Your task to perform on an android device: Go to Amazon Image 0: 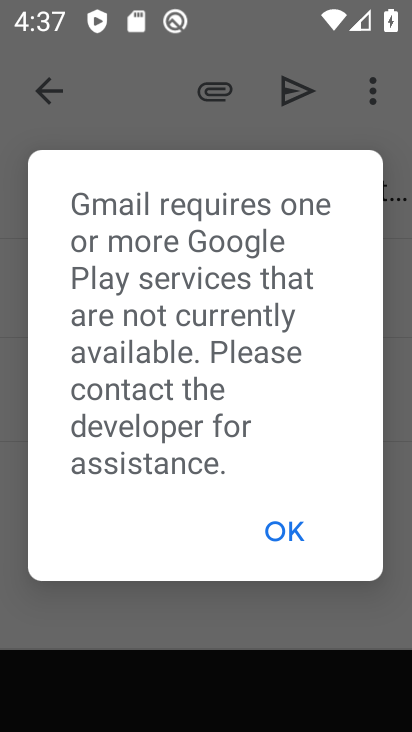
Step 0: drag from (250, 577) to (236, 457)
Your task to perform on an android device: Go to Amazon Image 1: 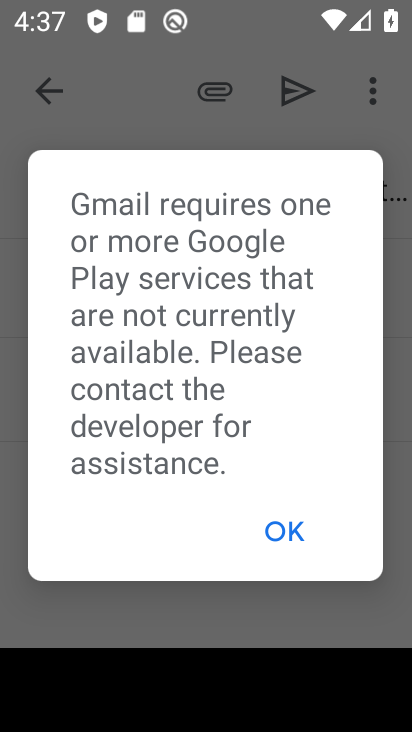
Step 1: click (279, 525)
Your task to perform on an android device: Go to Amazon Image 2: 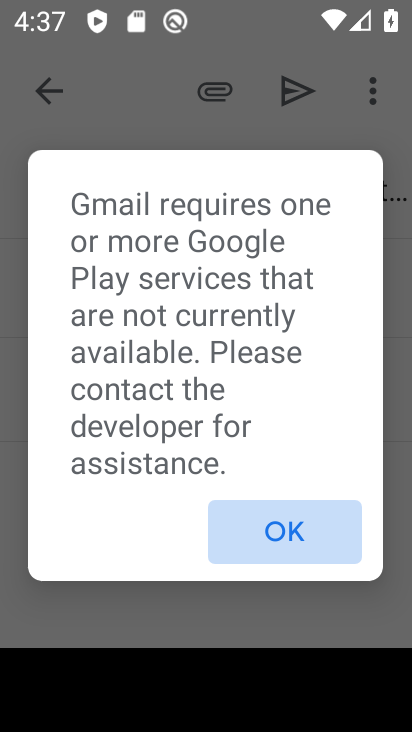
Step 2: click (279, 525)
Your task to perform on an android device: Go to Amazon Image 3: 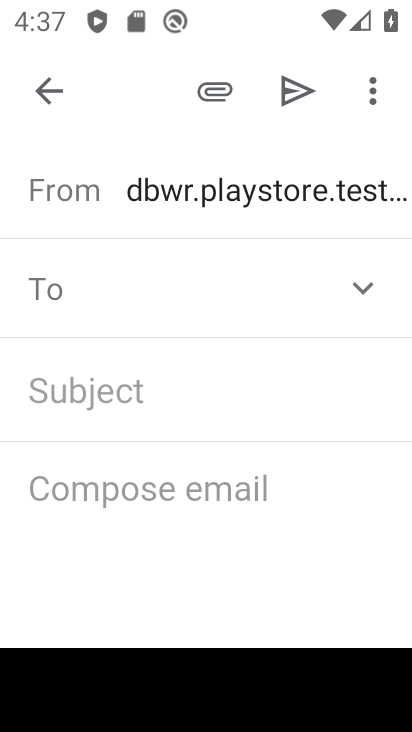
Step 3: click (274, 524)
Your task to perform on an android device: Go to Amazon Image 4: 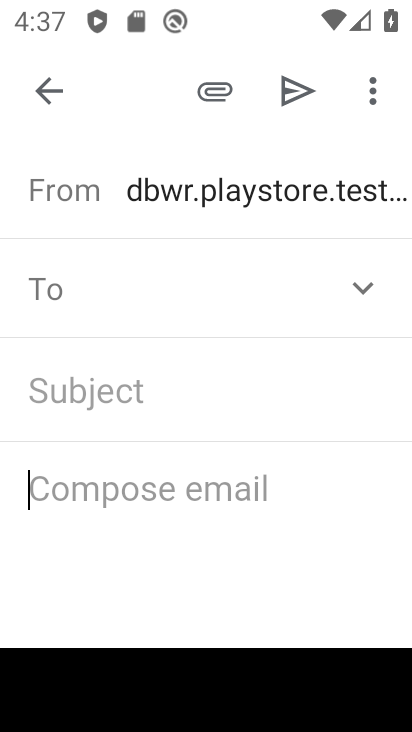
Step 4: press back button
Your task to perform on an android device: Go to Amazon Image 5: 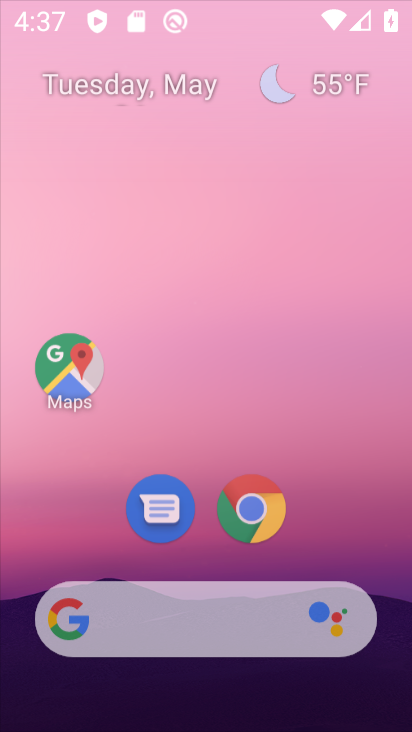
Step 5: click (57, 91)
Your task to perform on an android device: Go to Amazon Image 6: 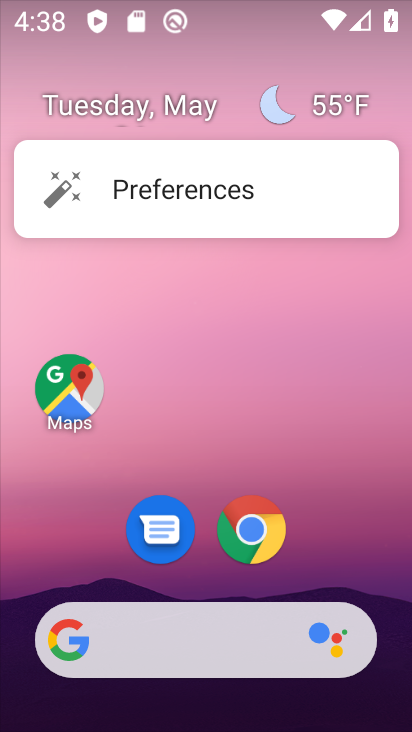
Step 6: drag from (296, 656) to (277, 74)
Your task to perform on an android device: Go to Amazon Image 7: 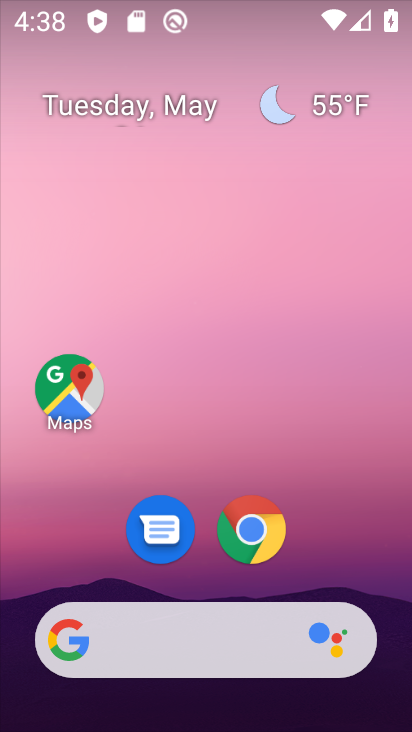
Step 7: drag from (266, 678) to (224, 225)
Your task to perform on an android device: Go to Amazon Image 8: 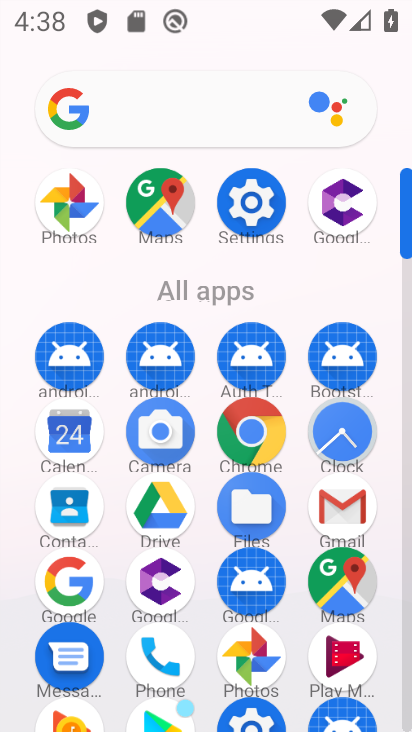
Step 8: click (263, 439)
Your task to perform on an android device: Go to Amazon Image 9: 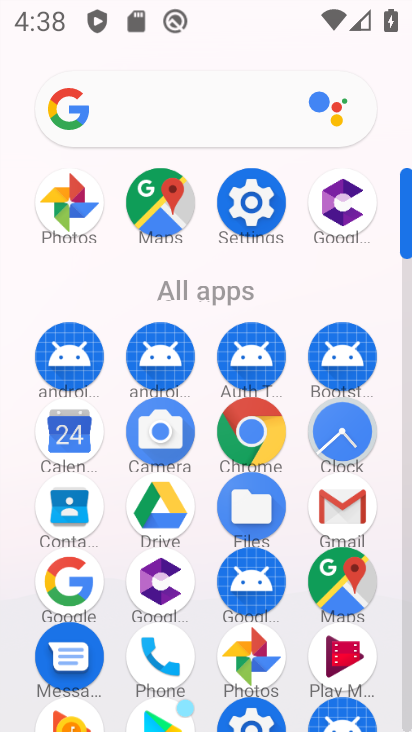
Step 9: click (264, 440)
Your task to perform on an android device: Go to Amazon Image 10: 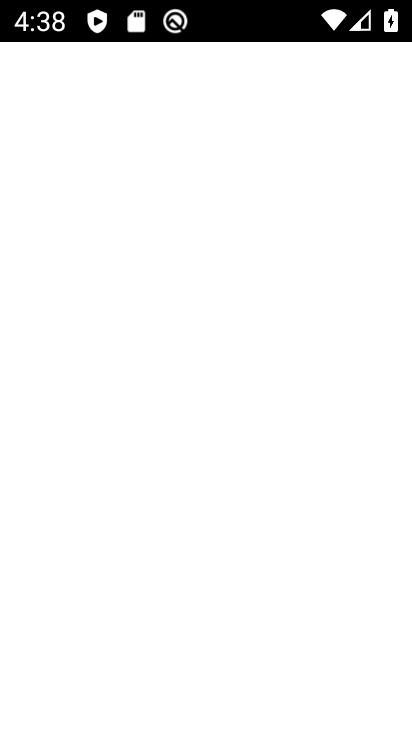
Step 10: click (261, 433)
Your task to perform on an android device: Go to Amazon Image 11: 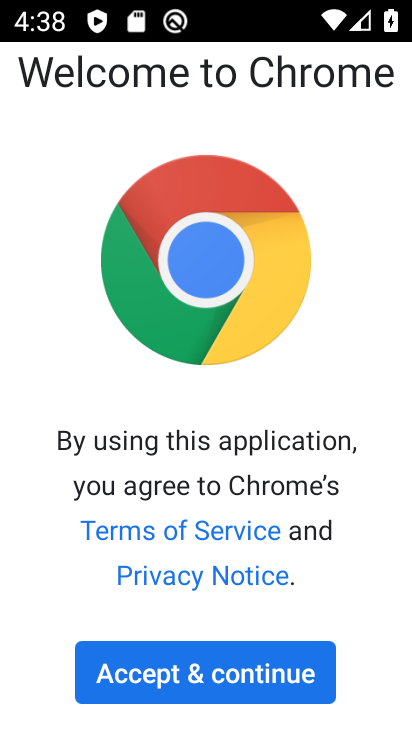
Step 11: click (211, 681)
Your task to perform on an android device: Go to Amazon Image 12: 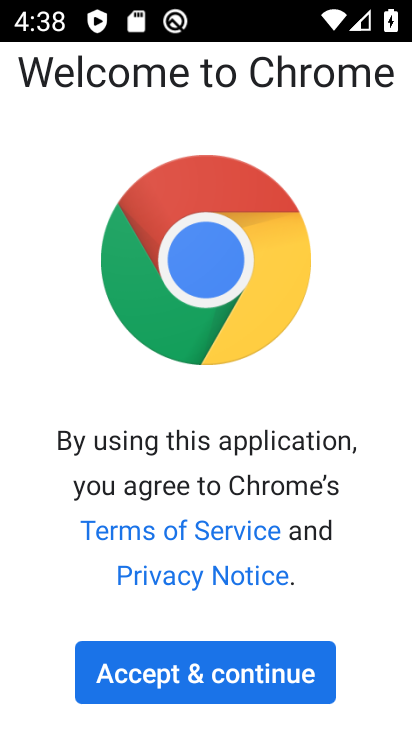
Step 12: click (211, 682)
Your task to perform on an android device: Go to Amazon Image 13: 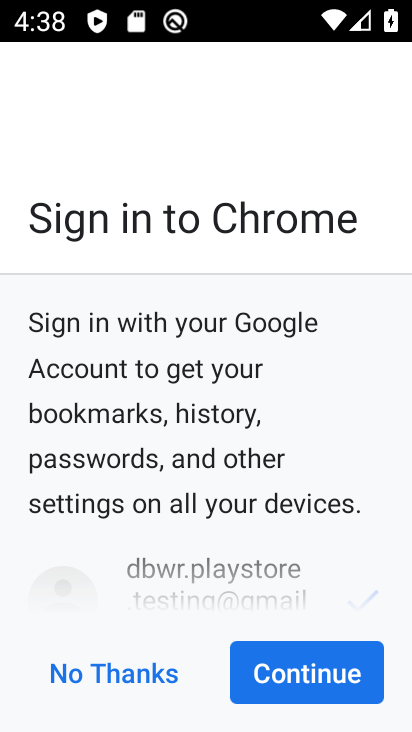
Step 13: click (216, 681)
Your task to perform on an android device: Go to Amazon Image 14: 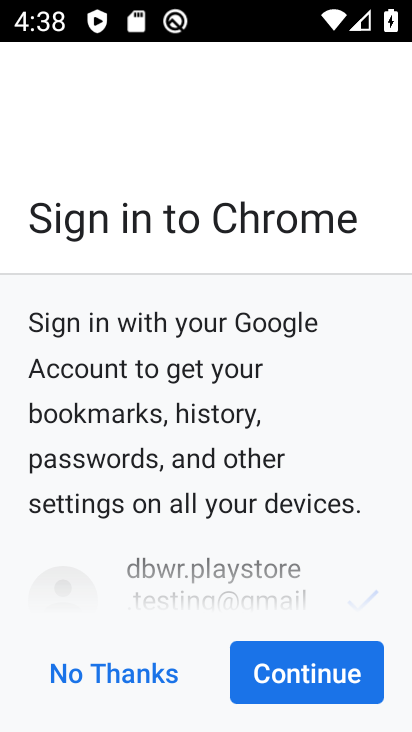
Step 14: click (309, 677)
Your task to perform on an android device: Go to Amazon Image 15: 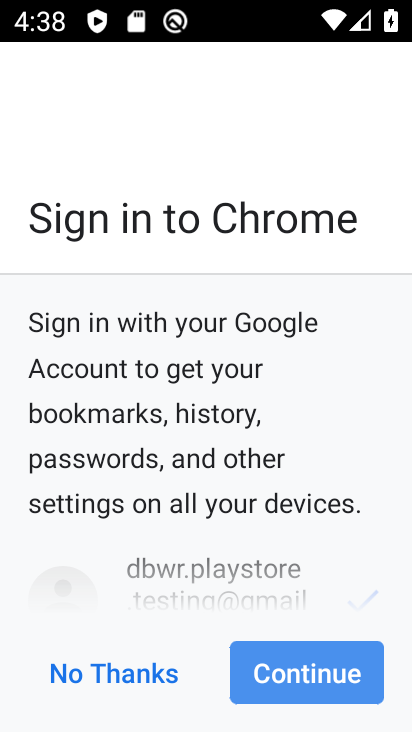
Step 15: click (309, 677)
Your task to perform on an android device: Go to Amazon Image 16: 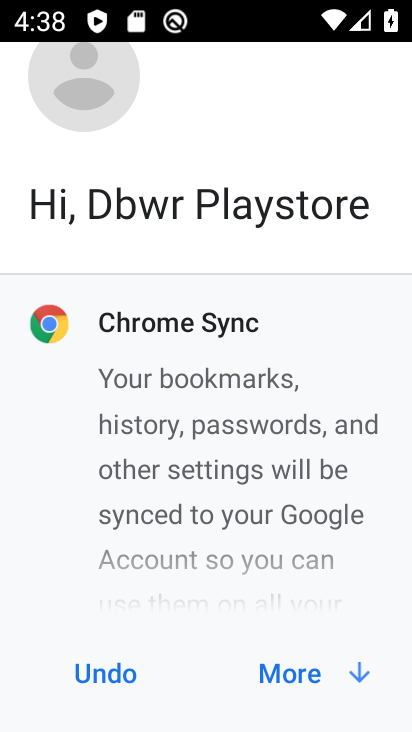
Step 16: click (315, 679)
Your task to perform on an android device: Go to Amazon Image 17: 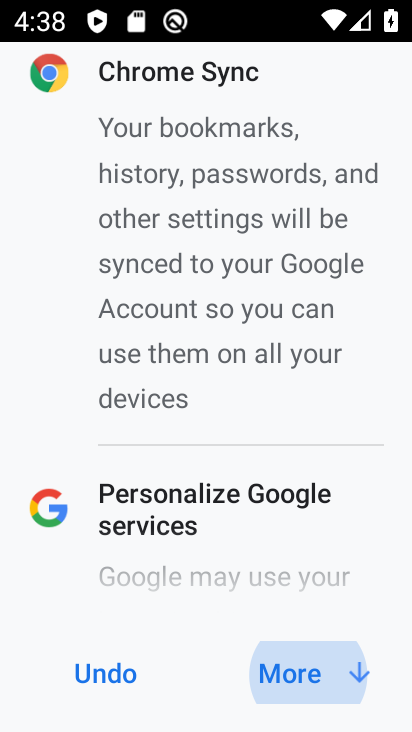
Step 17: click (317, 679)
Your task to perform on an android device: Go to Amazon Image 18: 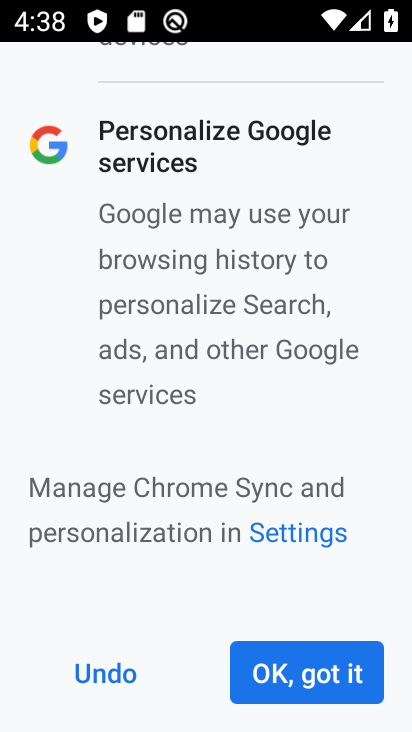
Step 18: click (319, 679)
Your task to perform on an android device: Go to Amazon Image 19: 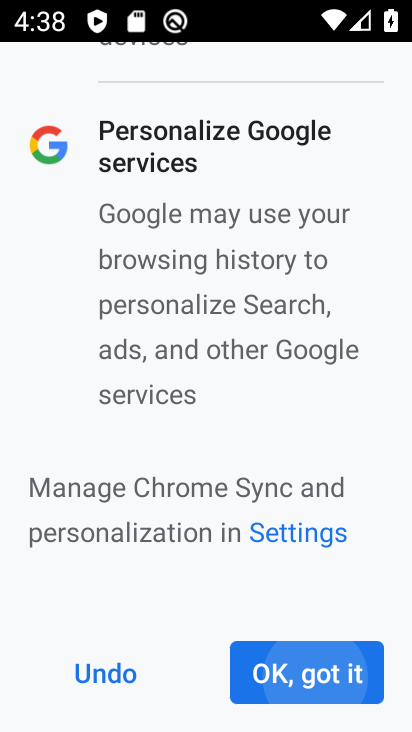
Step 19: click (322, 674)
Your task to perform on an android device: Go to Amazon Image 20: 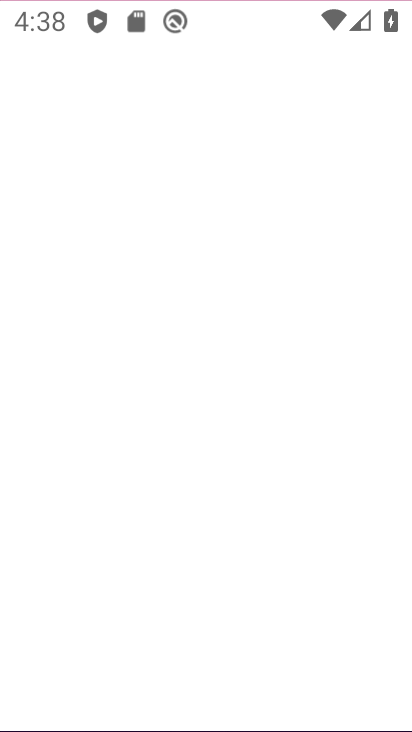
Step 20: click (323, 658)
Your task to perform on an android device: Go to Amazon Image 21: 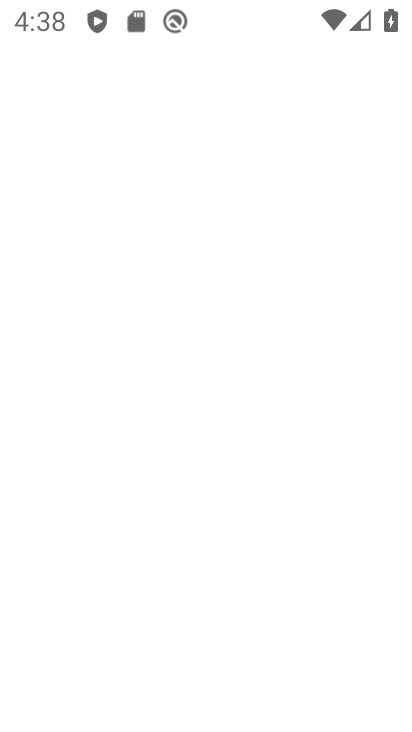
Step 21: click (323, 658)
Your task to perform on an android device: Go to Amazon Image 22: 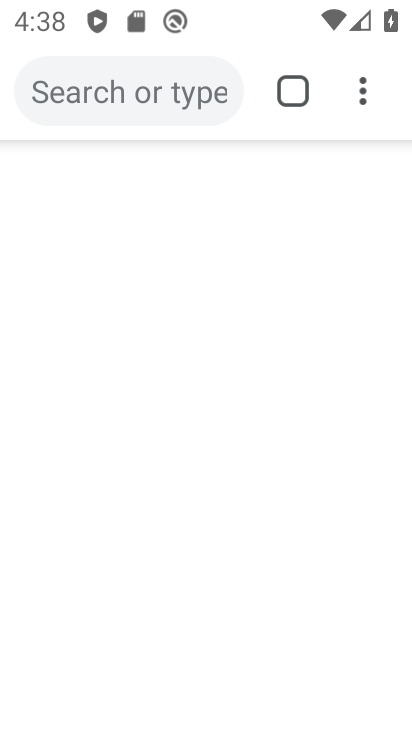
Step 22: click (328, 661)
Your task to perform on an android device: Go to Amazon Image 23: 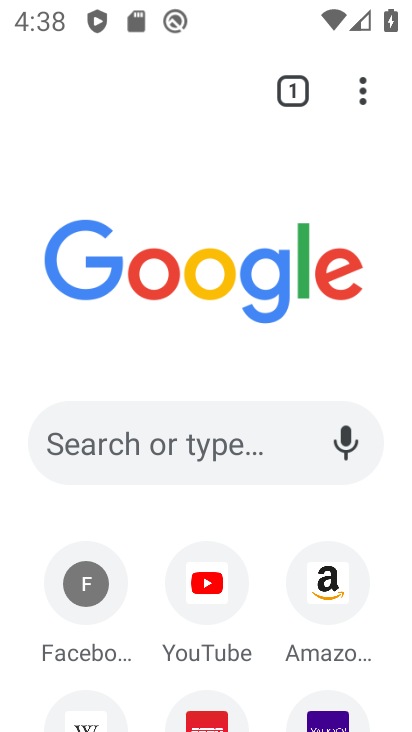
Step 23: click (357, 104)
Your task to perform on an android device: Go to Amazon Image 24: 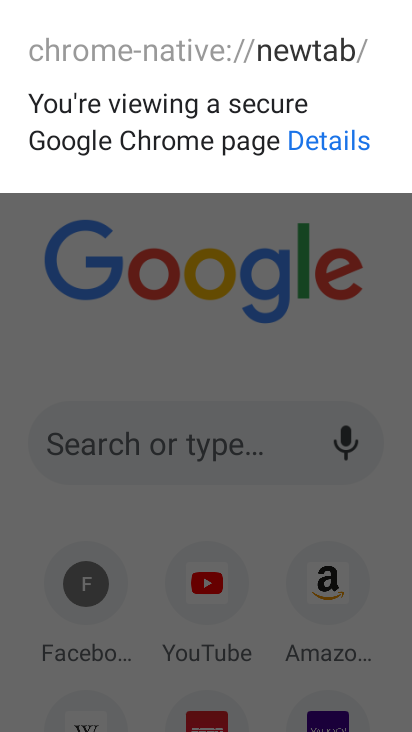
Step 24: click (258, 268)
Your task to perform on an android device: Go to Amazon Image 25: 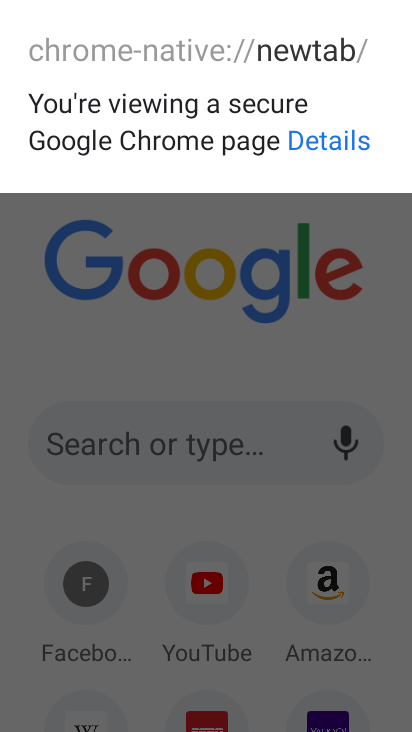
Step 25: click (258, 268)
Your task to perform on an android device: Go to Amazon Image 26: 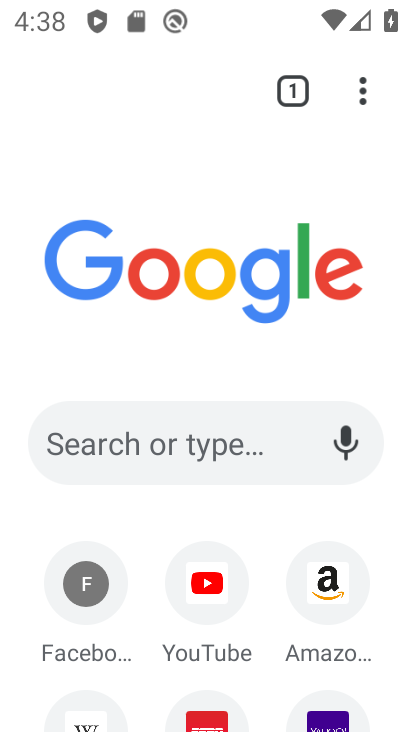
Step 26: click (257, 261)
Your task to perform on an android device: Go to Amazon Image 27: 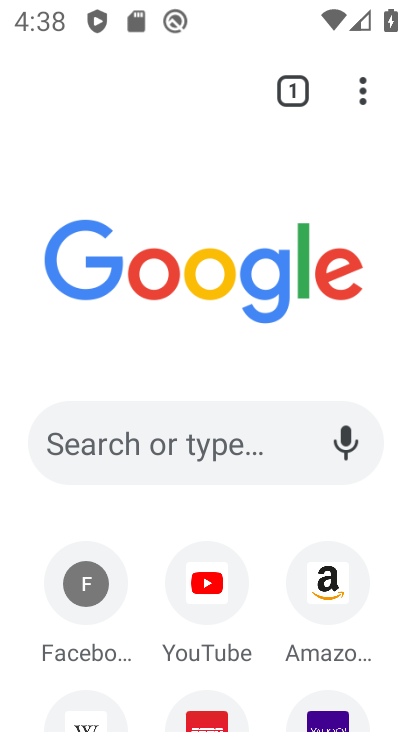
Step 27: click (258, 262)
Your task to perform on an android device: Go to Amazon Image 28: 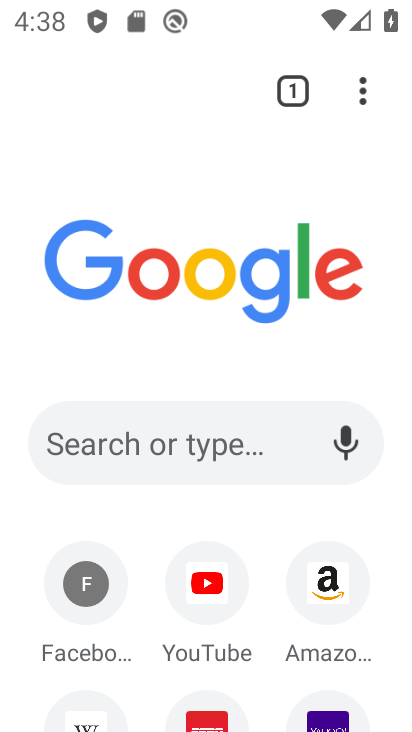
Step 28: click (326, 604)
Your task to perform on an android device: Go to Amazon Image 29: 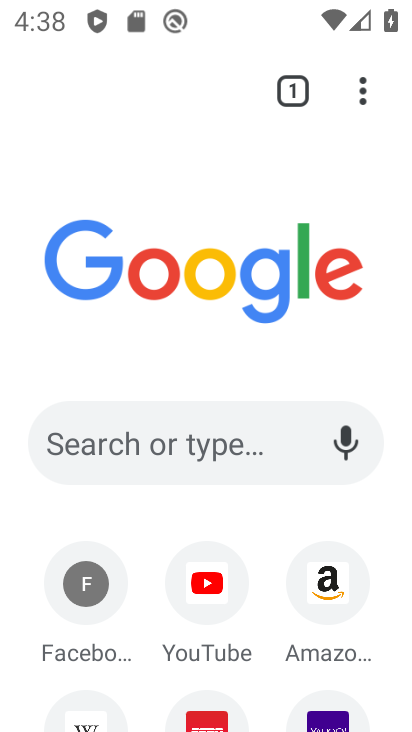
Step 29: click (326, 600)
Your task to perform on an android device: Go to Amazon Image 30: 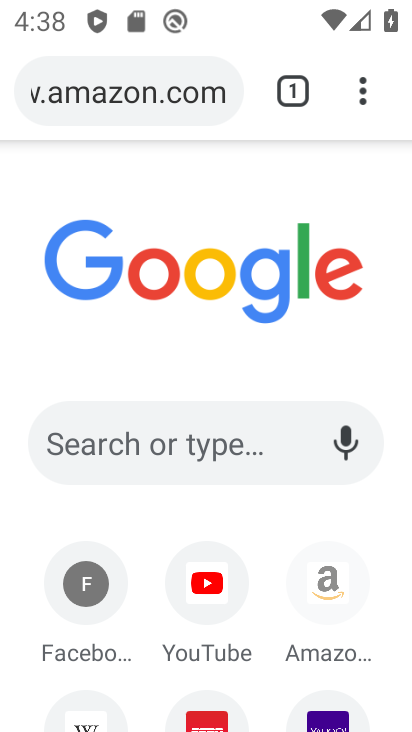
Step 30: click (326, 595)
Your task to perform on an android device: Go to Amazon Image 31: 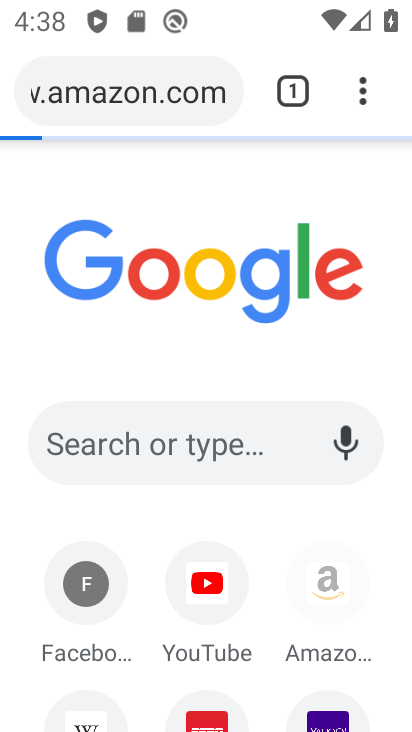
Step 31: click (328, 589)
Your task to perform on an android device: Go to Amazon Image 32: 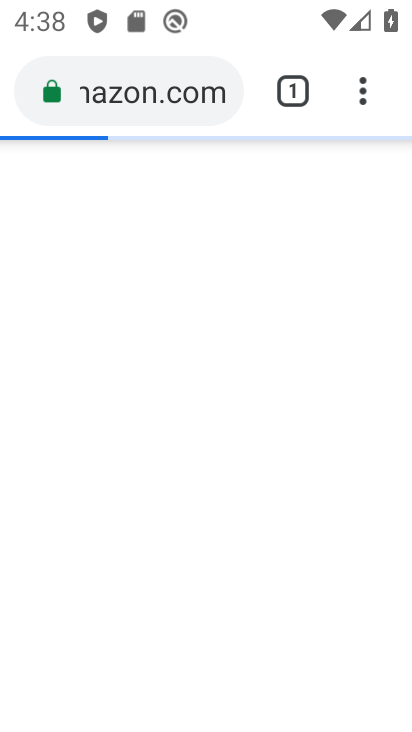
Step 32: click (327, 586)
Your task to perform on an android device: Go to Amazon Image 33: 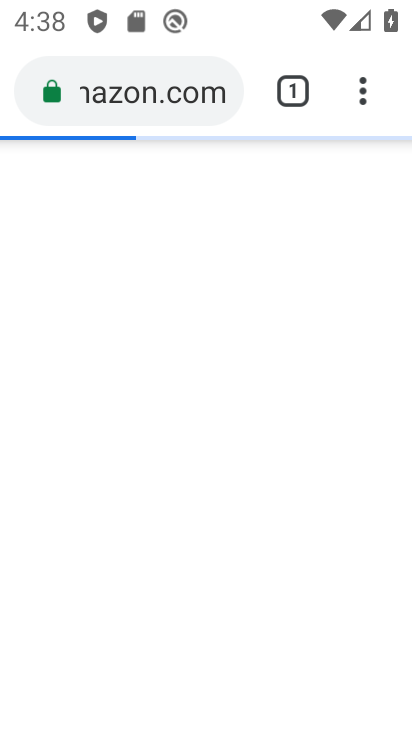
Step 33: click (309, 568)
Your task to perform on an android device: Go to Amazon Image 34: 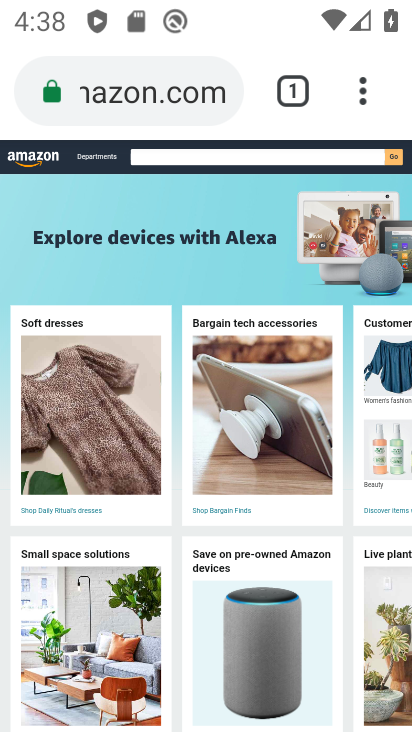
Step 34: click (271, 67)
Your task to perform on an android device: Go to Amazon Image 35: 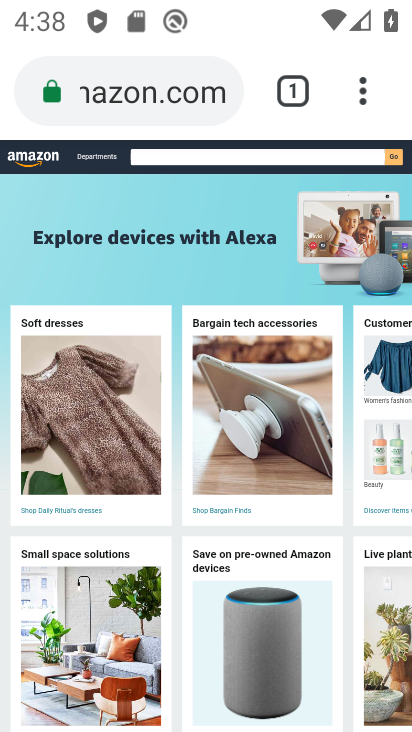
Step 35: task complete